Your task to perform on an android device: Go to battery settings Image 0: 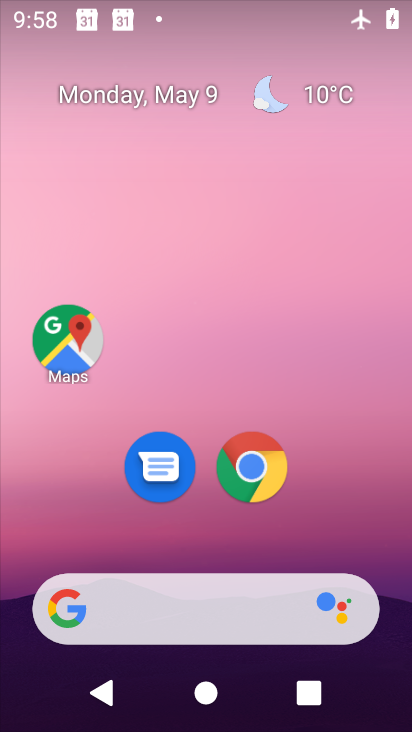
Step 0: drag from (357, 539) to (375, 20)
Your task to perform on an android device: Go to battery settings Image 1: 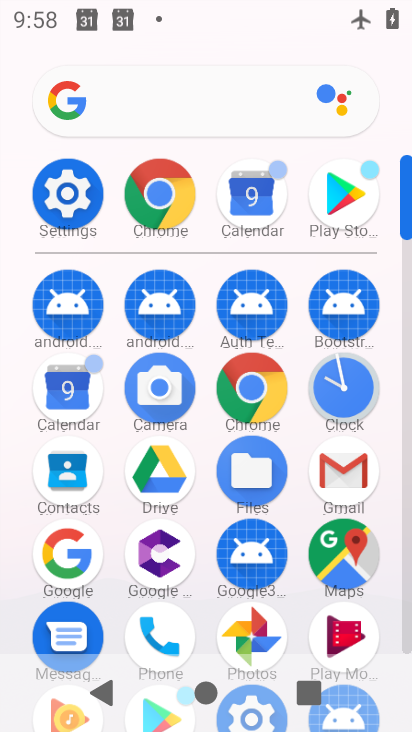
Step 1: click (79, 210)
Your task to perform on an android device: Go to battery settings Image 2: 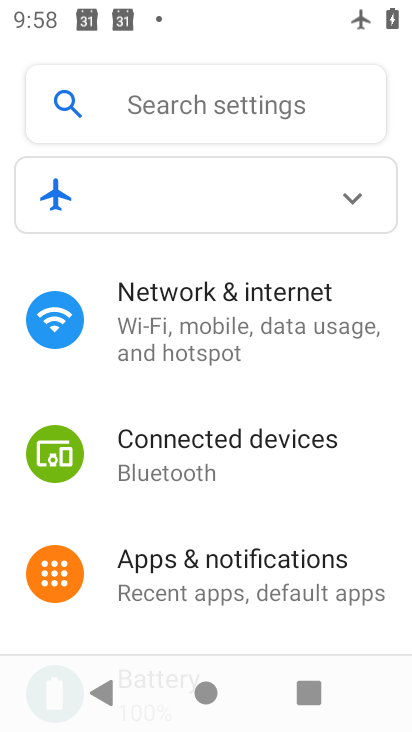
Step 2: drag from (385, 490) to (391, 0)
Your task to perform on an android device: Go to battery settings Image 3: 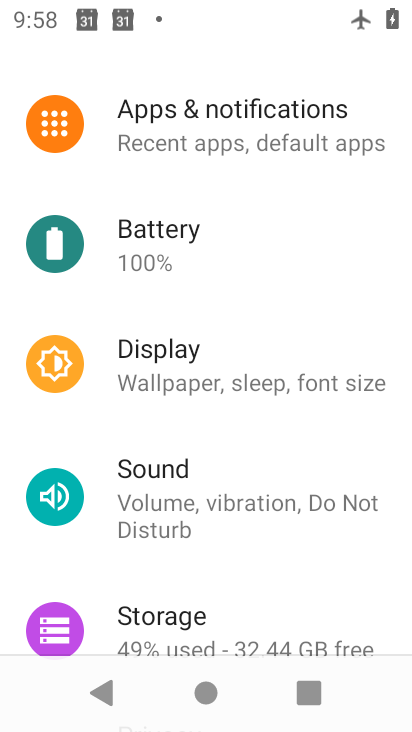
Step 3: click (145, 238)
Your task to perform on an android device: Go to battery settings Image 4: 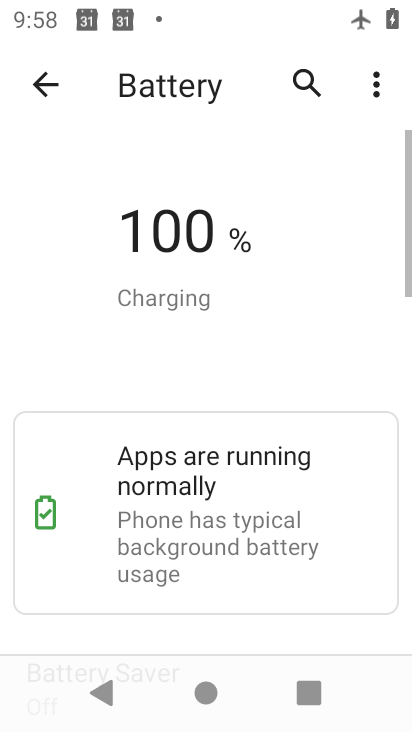
Step 4: task complete